Your task to perform on an android device: turn on javascript in the chrome app Image 0: 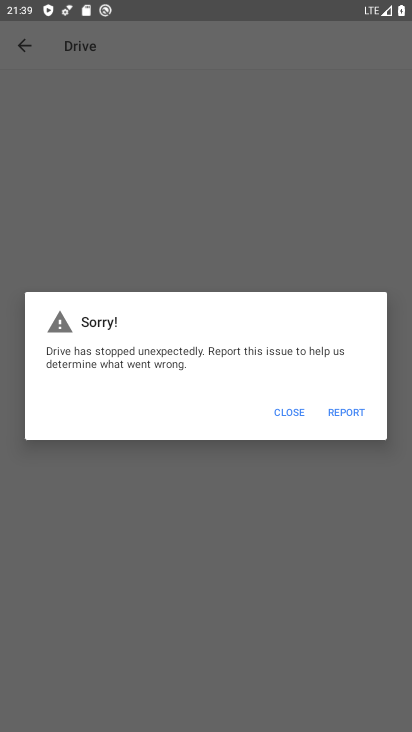
Step 0: press home button
Your task to perform on an android device: turn on javascript in the chrome app Image 1: 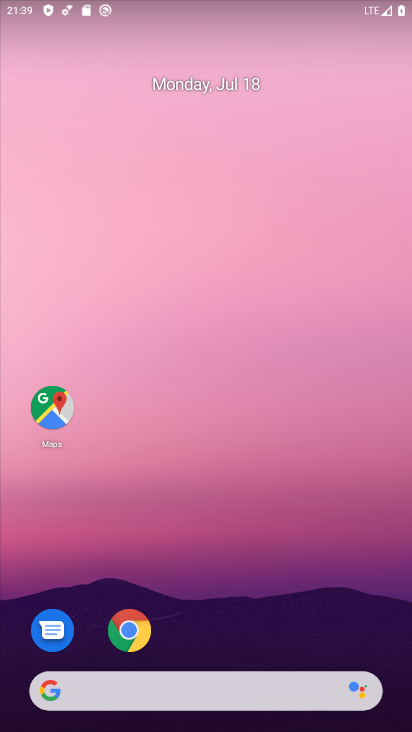
Step 1: click (129, 624)
Your task to perform on an android device: turn on javascript in the chrome app Image 2: 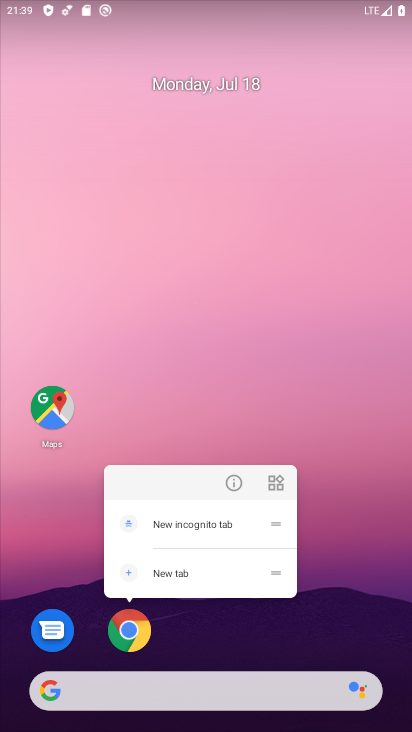
Step 2: click (132, 640)
Your task to perform on an android device: turn on javascript in the chrome app Image 3: 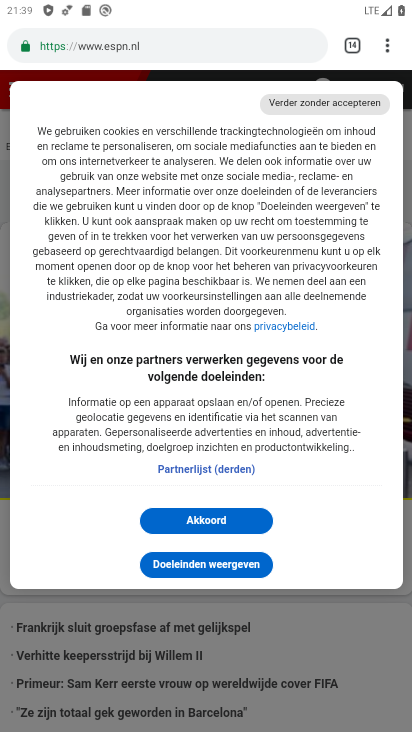
Step 3: click (389, 51)
Your task to perform on an android device: turn on javascript in the chrome app Image 4: 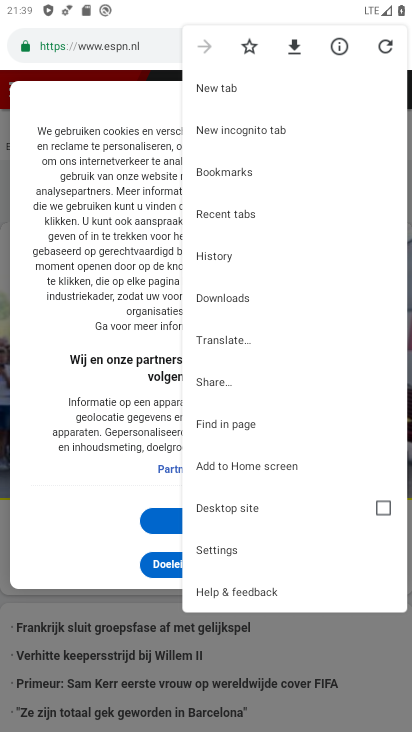
Step 4: click (240, 550)
Your task to perform on an android device: turn on javascript in the chrome app Image 5: 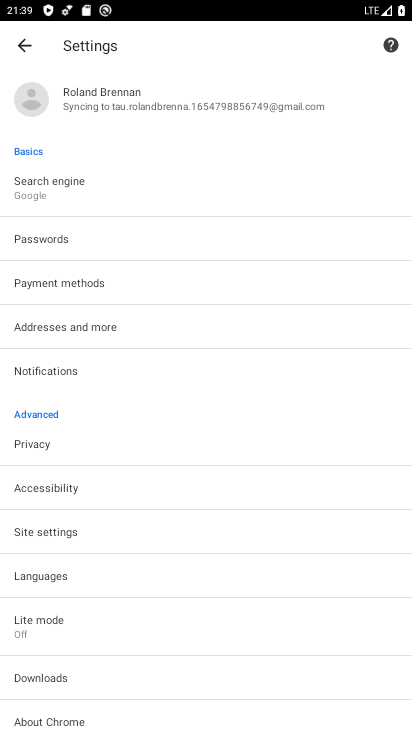
Step 5: click (111, 529)
Your task to perform on an android device: turn on javascript in the chrome app Image 6: 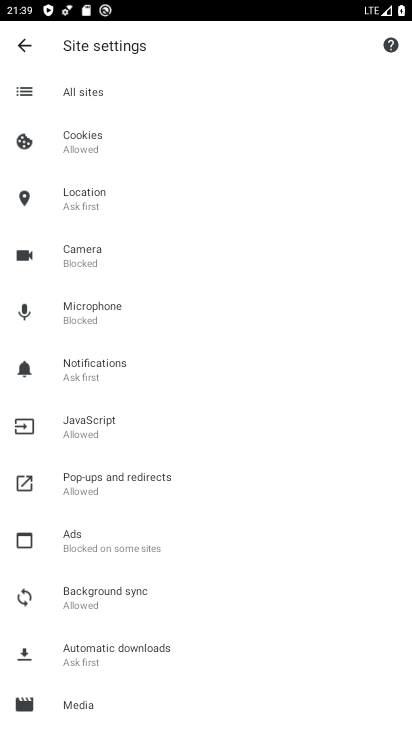
Step 6: click (105, 433)
Your task to perform on an android device: turn on javascript in the chrome app Image 7: 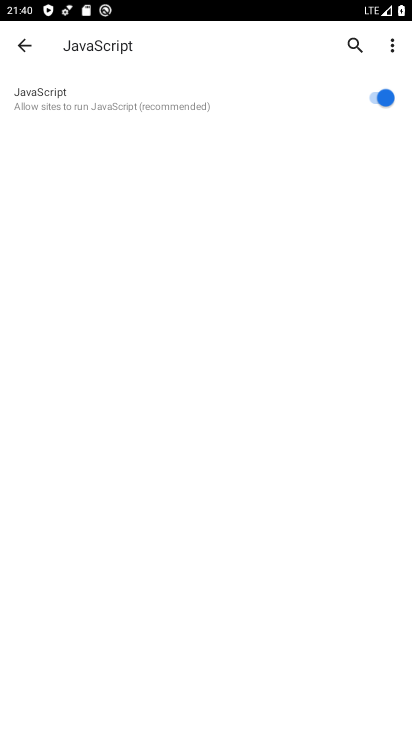
Step 7: task complete